Your task to perform on an android device: open wifi settings Image 0: 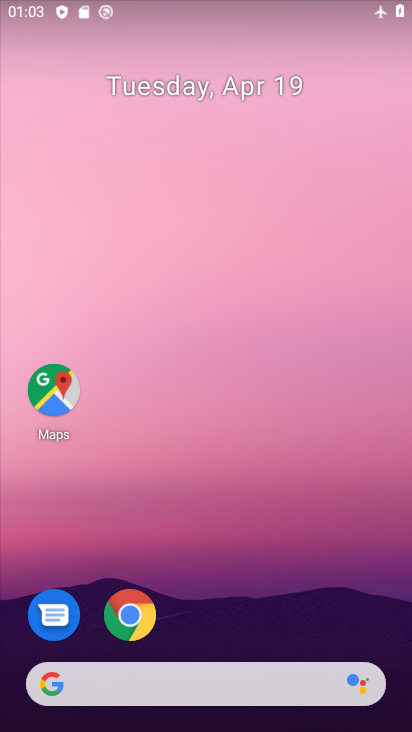
Step 0: drag from (318, 576) to (341, 230)
Your task to perform on an android device: open wifi settings Image 1: 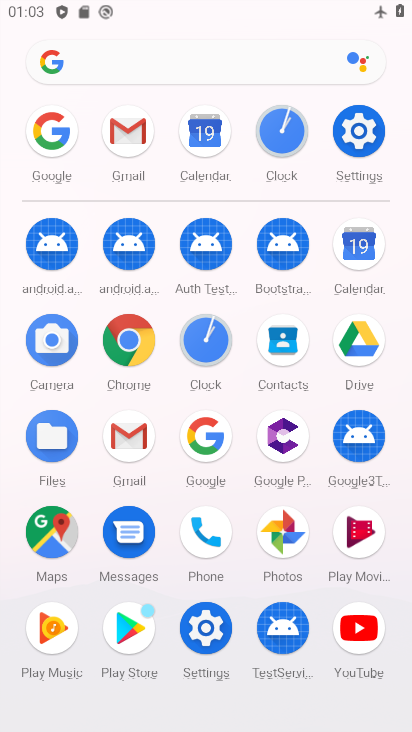
Step 1: click (371, 129)
Your task to perform on an android device: open wifi settings Image 2: 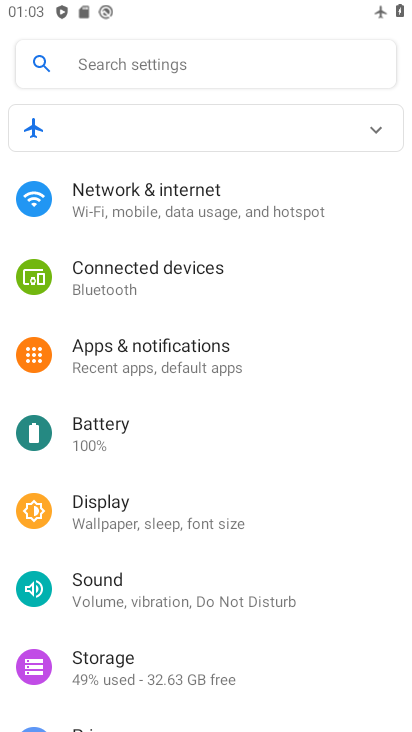
Step 2: click (190, 215)
Your task to perform on an android device: open wifi settings Image 3: 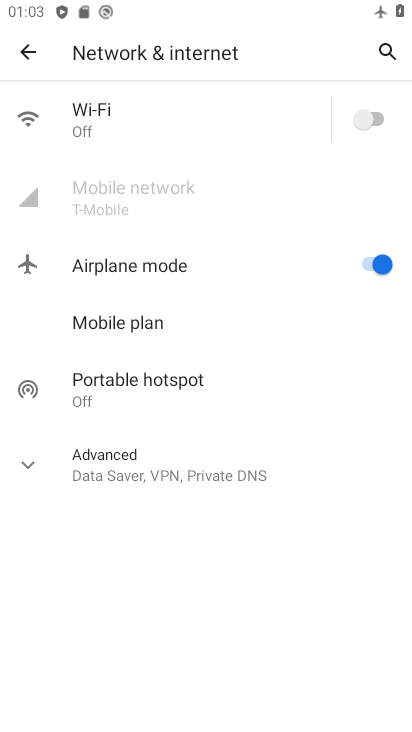
Step 3: click (214, 126)
Your task to perform on an android device: open wifi settings Image 4: 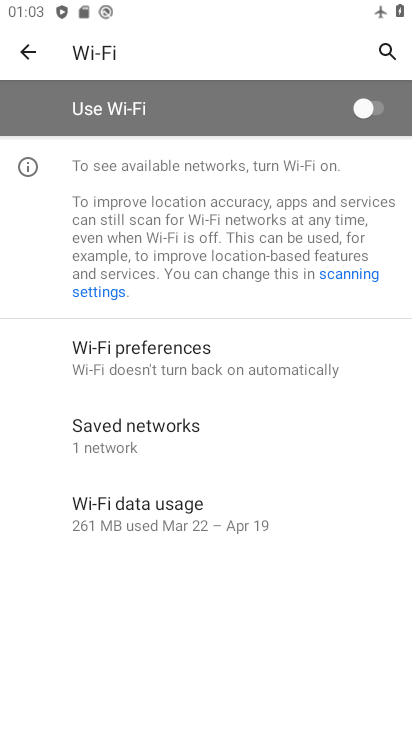
Step 4: task complete